Your task to perform on an android device: turn on translation in the chrome app Image 0: 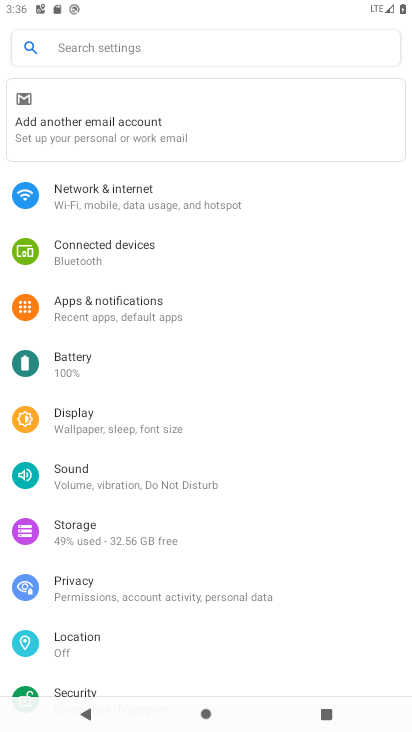
Step 0: press home button
Your task to perform on an android device: turn on translation in the chrome app Image 1: 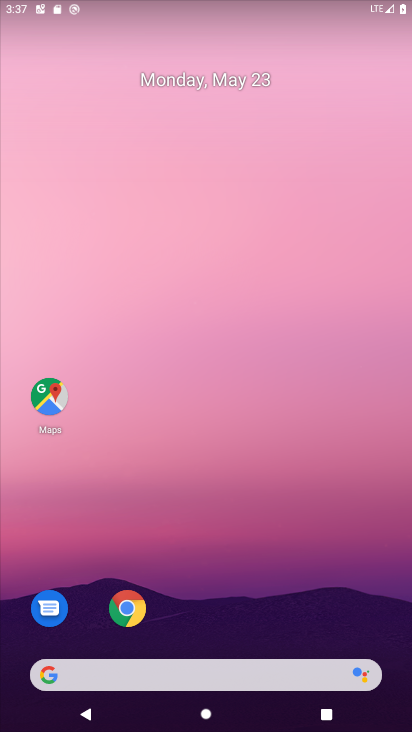
Step 1: click (131, 614)
Your task to perform on an android device: turn on translation in the chrome app Image 2: 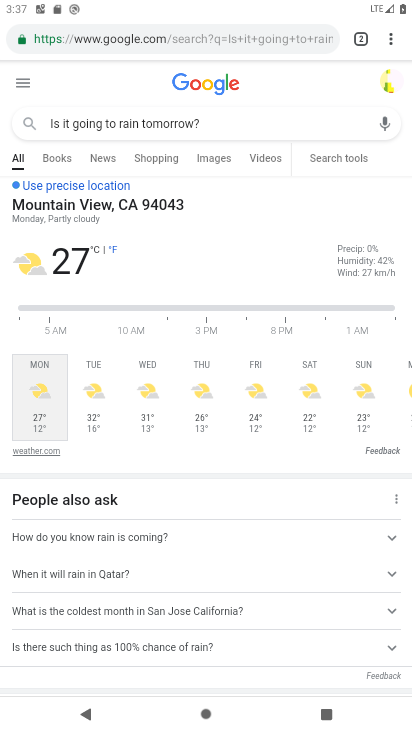
Step 2: click (394, 41)
Your task to perform on an android device: turn on translation in the chrome app Image 3: 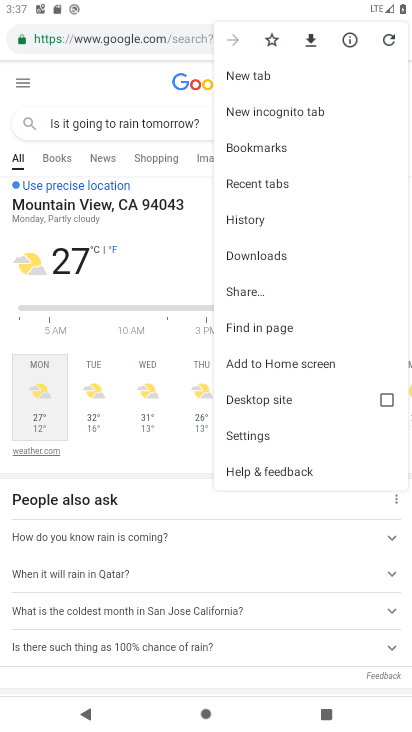
Step 3: click (340, 433)
Your task to perform on an android device: turn on translation in the chrome app Image 4: 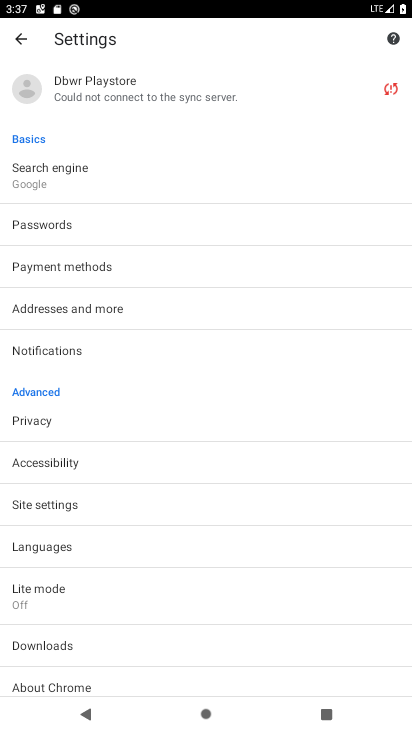
Step 4: click (67, 550)
Your task to perform on an android device: turn on translation in the chrome app Image 5: 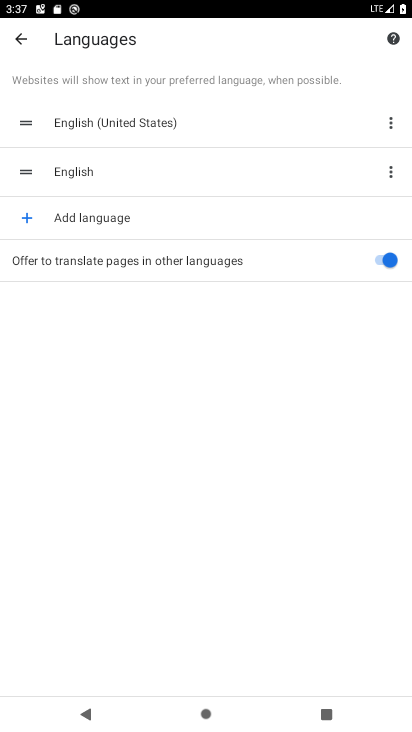
Step 5: task complete